Your task to perform on an android device: Open the phone app and click the voicemail tab. Image 0: 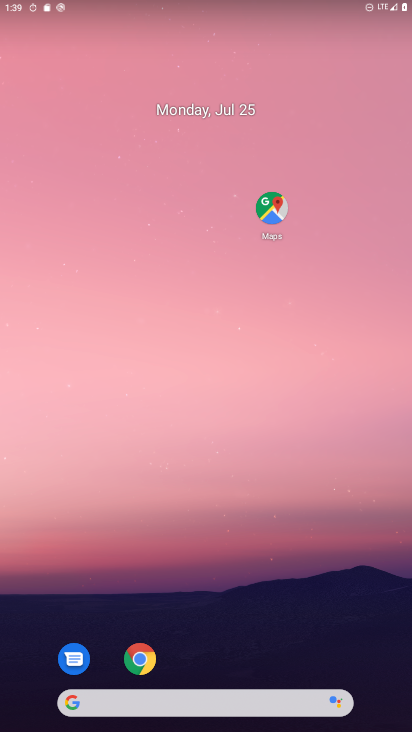
Step 0: drag from (34, 714) to (277, 6)
Your task to perform on an android device: Open the phone app and click the voicemail tab. Image 1: 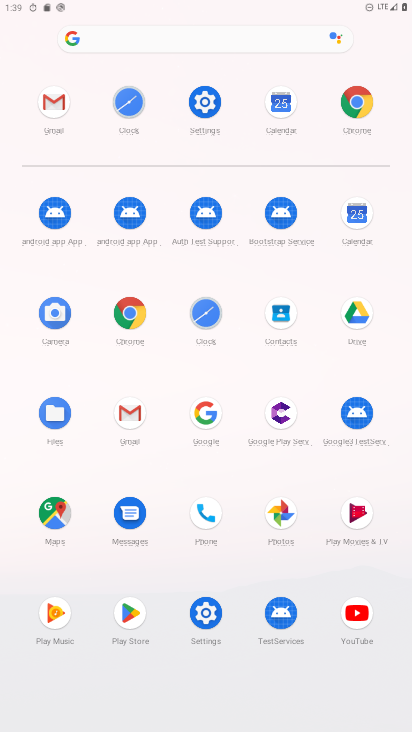
Step 1: click (202, 531)
Your task to perform on an android device: Open the phone app and click the voicemail tab. Image 2: 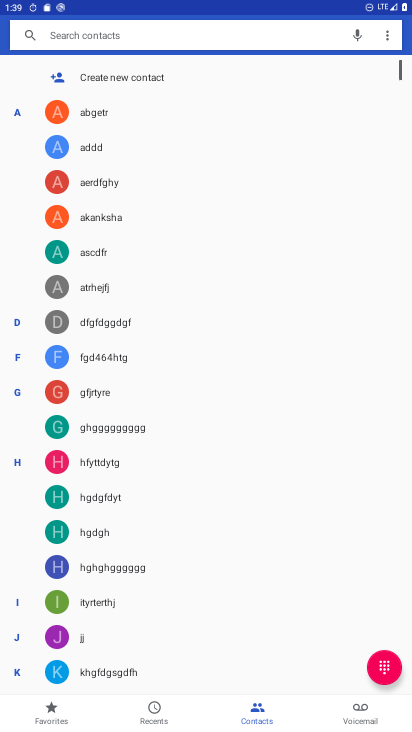
Step 2: click (373, 717)
Your task to perform on an android device: Open the phone app and click the voicemail tab. Image 3: 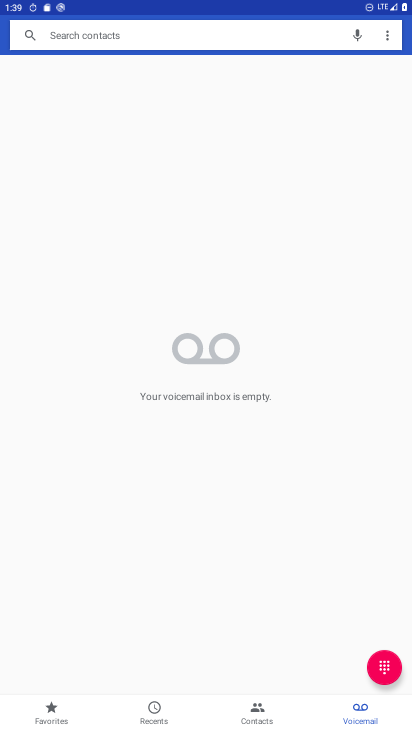
Step 3: task complete